Your task to perform on an android device: Search for vegetarian restaurants on Maps Image 0: 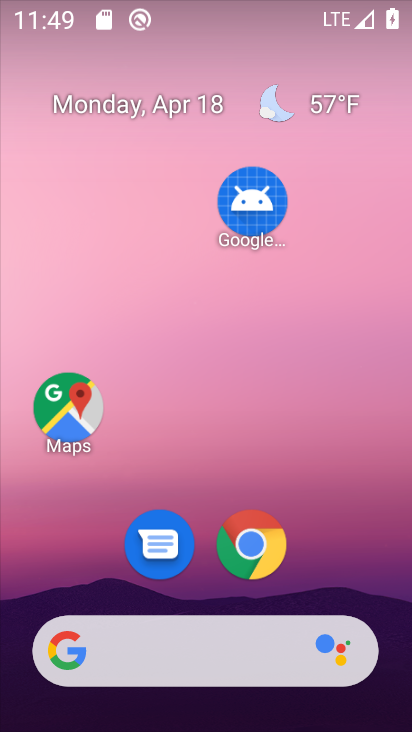
Step 0: drag from (195, 556) to (199, 263)
Your task to perform on an android device: Search for vegetarian restaurants on Maps Image 1: 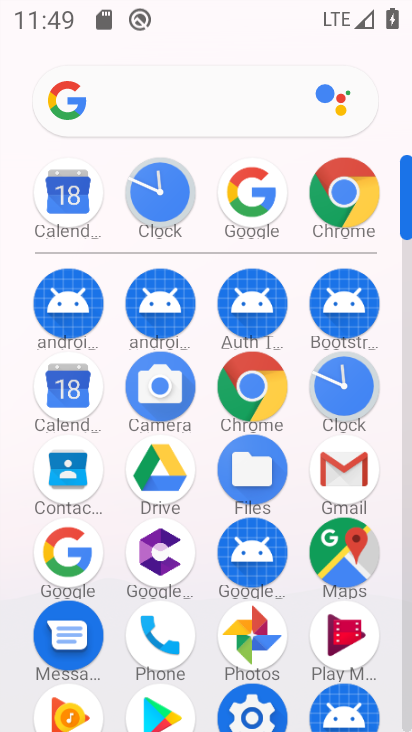
Step 1: click (68, 546)
Your task to perform on an android device: Search for vegetarian restaurants on Maps Image 2: 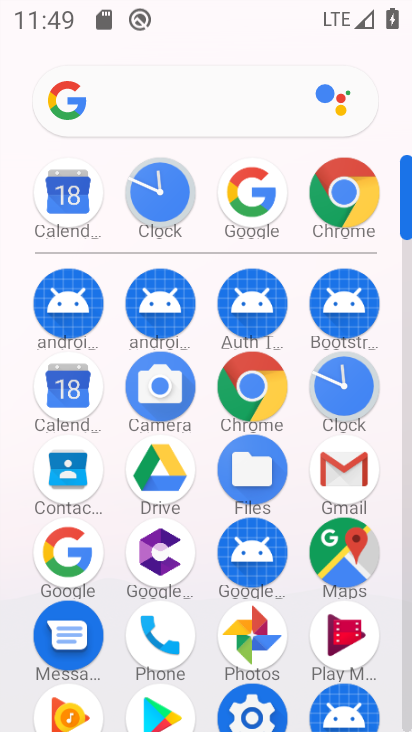
Step 2: click (68, 546)
Your task to perform on an android device: Search for vegetarian restaurants on Maps Image 3: 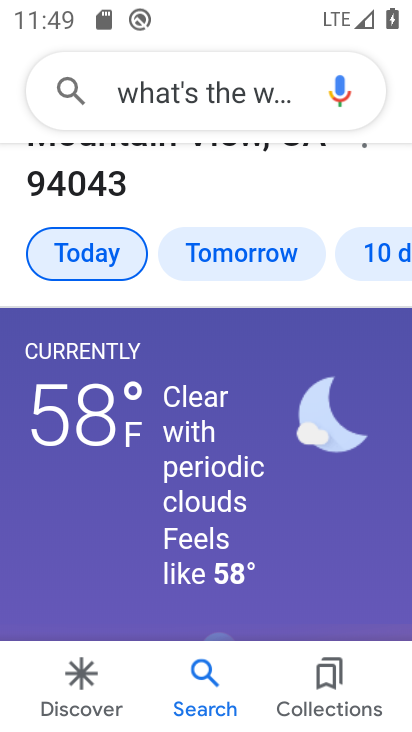
Step 3: press home button
Your task to perform on an android device: Search for vegetarian restaurants on Maps Image 4: 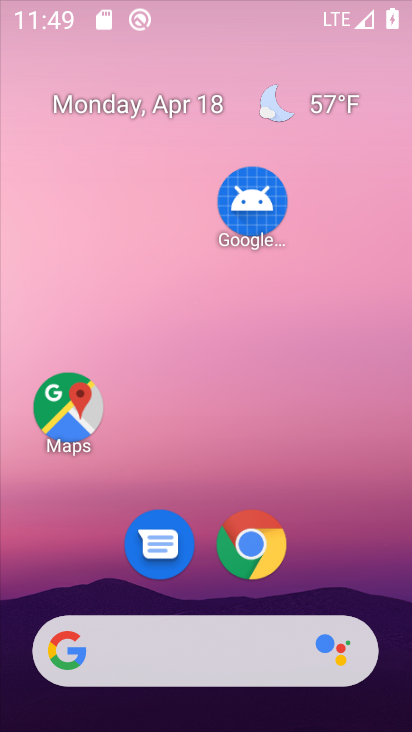
Step 4: drag from (215, 414) to (215, 193)
Your task to perform on an android device: Search for vegetarian restaurants on Maps Image 5: 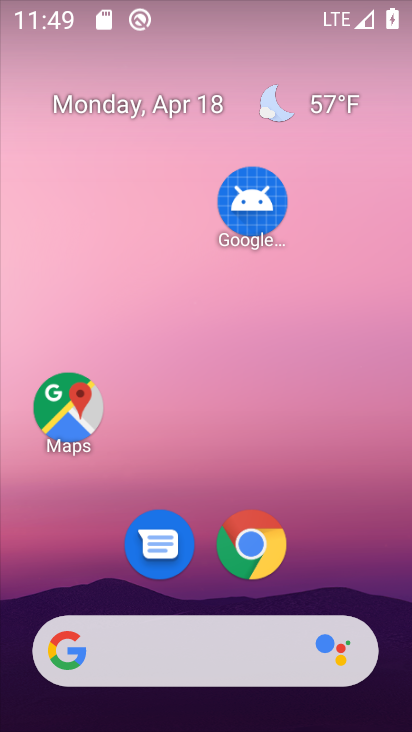
Step 5: click (70, 383)
Your task to perform on an android device: Search for vegetarian restaurants on Maps Image 6: 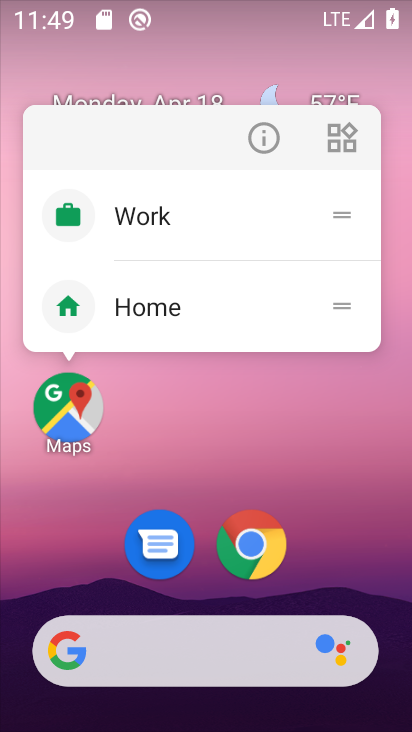
Step 6: click (70, 399)
Your task to perform on an android device: Search for vegetarian restaurants on Maps Image 7: 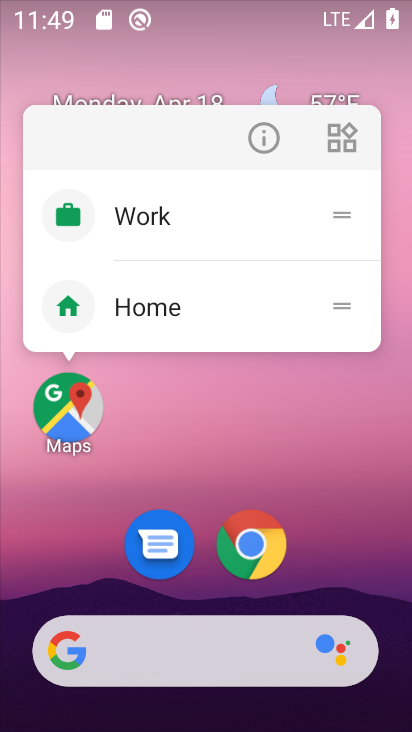
Step 7: click (70, 399)
Your task to perform on an android device: Search for vegetarian restaurants on Maps Image 8: 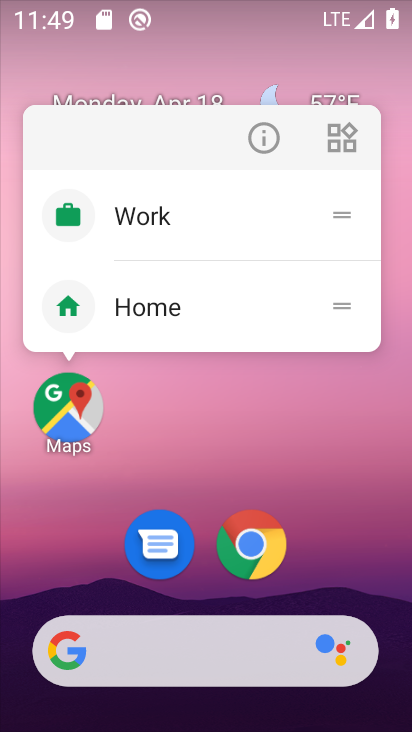
Step 8: click (70, 400)
Your task to perform on an android device: Search for vegetarian restaurants on Maps Image 9: 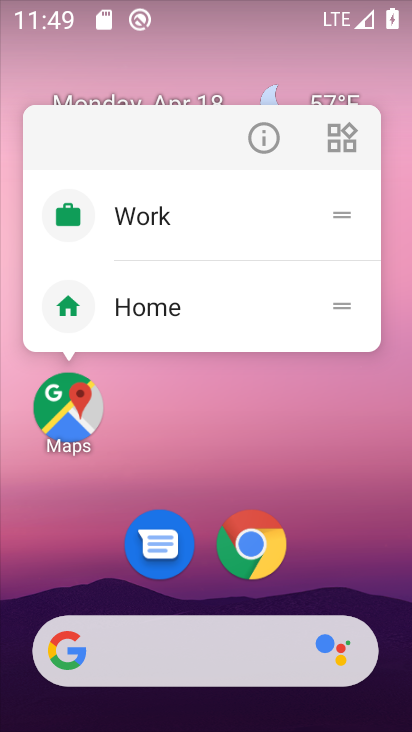
Step 9: click (67, 397)
Your task to perform on an android device: Search for vegetarian restaurants on Maps Image 10: 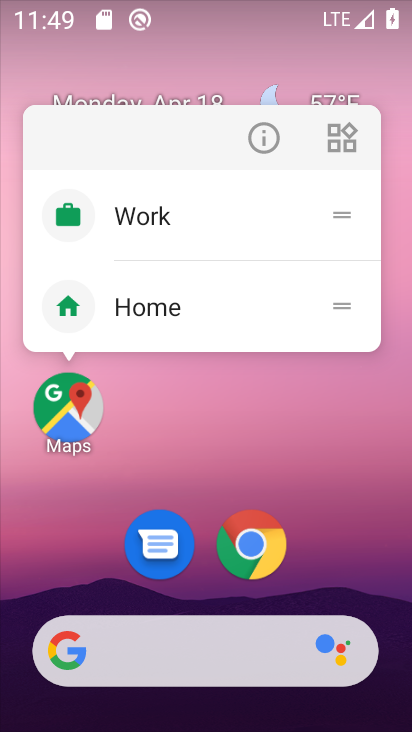
Step 10: click (59, 401)
Your task to perform on an android device: Search for vegetarian restaurants on Maps Image 11: 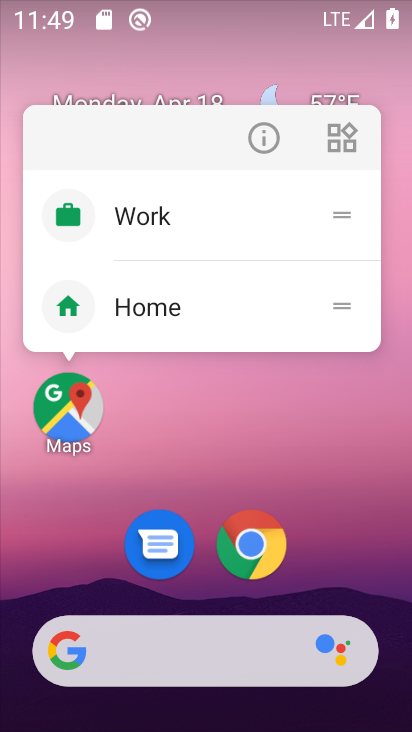
Step 11: click (84, 406)
Your task to perform on an android device: Search for vegetarian restaurants on Maps Image 12: 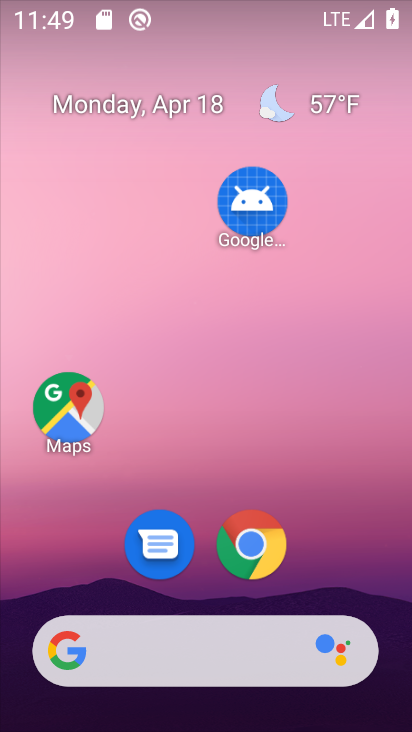
Step 12: click (83, 406)
Your task to perform on an android device: Search for vegetarian restaurants on Maps Image 13: 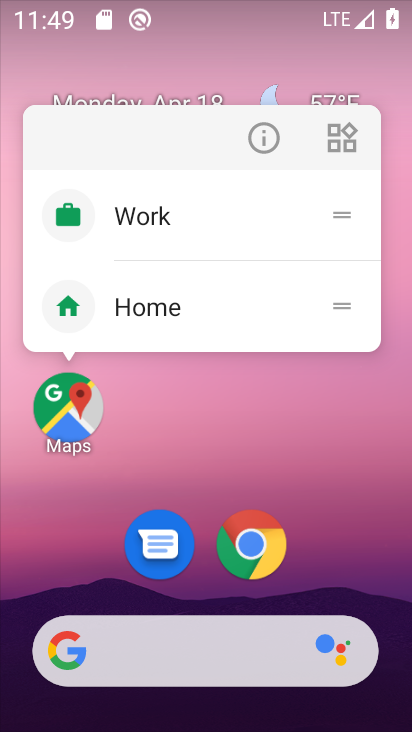
Step 13: click (78, 414)
Your task to perform on an android device: Search for vegetarian restaurants on Maps Image 14: 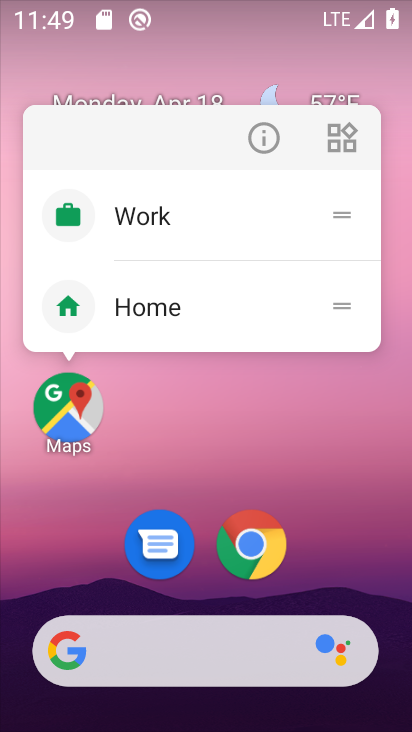
Step 14: click (78, 409)
Your task to perform on an android device: Search for vegetarian restaurants on Maps Image 15: 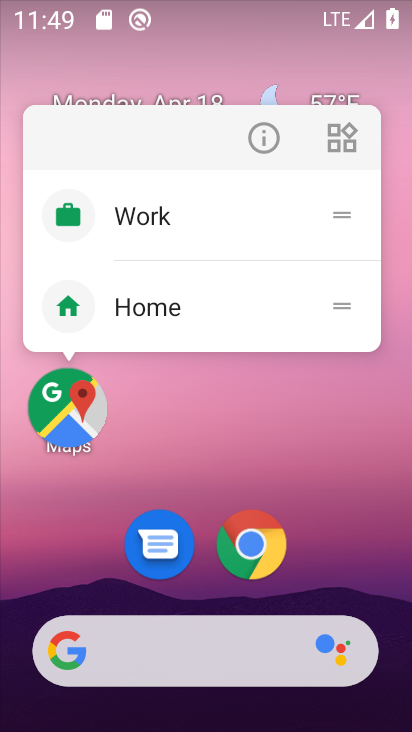
Step 15: click (78, 409)
Your task to perform on an android device: Search for vegetarian restaurants on Maps Image 16: 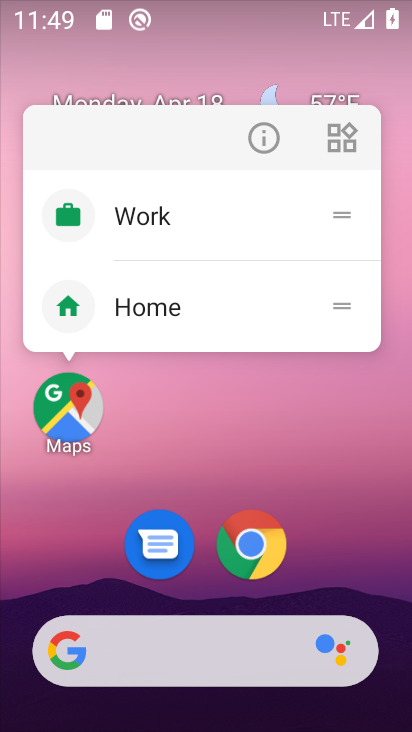
Step 16: drag from (199, 547) to (201, 223)
Your task to perform on an android device: Search for vegetarian restaurants on Maps Image 17: 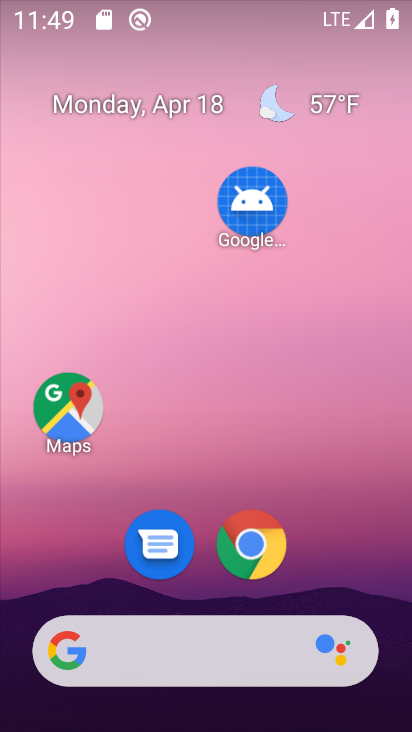
Step 17: drag from (210, 598) to (242, 160)
Your task to perform on an android device: Search for vegetarian restaurants on Maps Image 18: 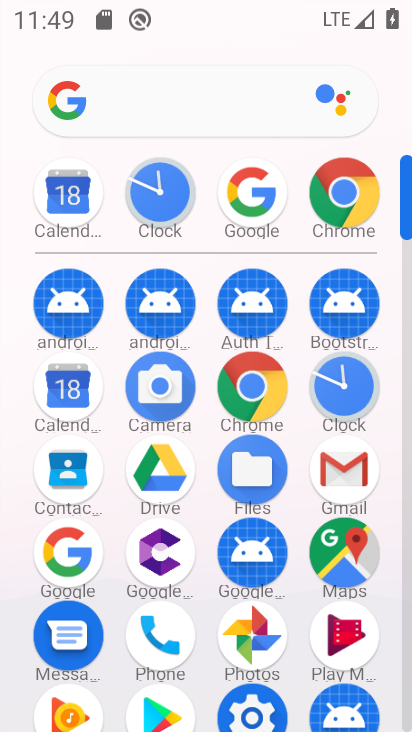
Step 18: click (329, 553)
Your task to perform on an android device: Search for vegetarian restaurants on Maps Image 19: 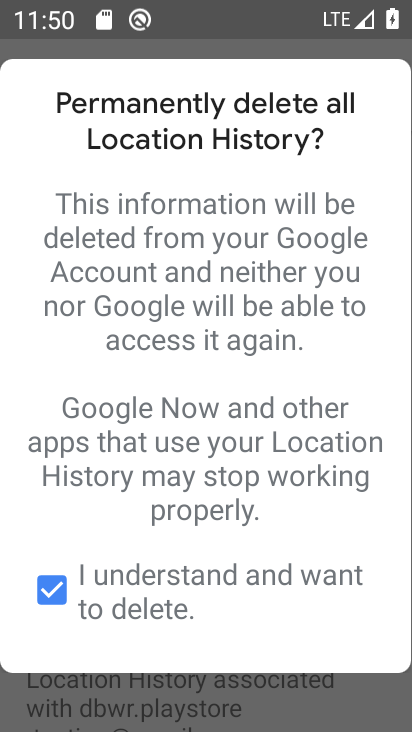
Step 19: press back button
Your task to perform on an android device: Search for vegetarian restaurants on Maps Image 20: 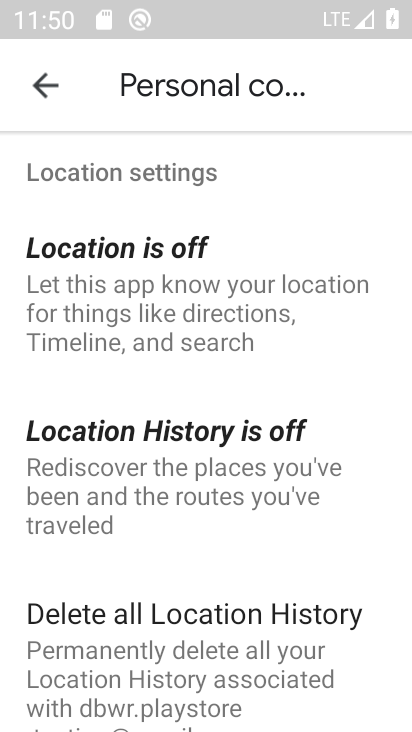
Step 20: click (63, 83)
Your task to perform on an android device: Search for vegetarian restaurants on Maps Image 21: 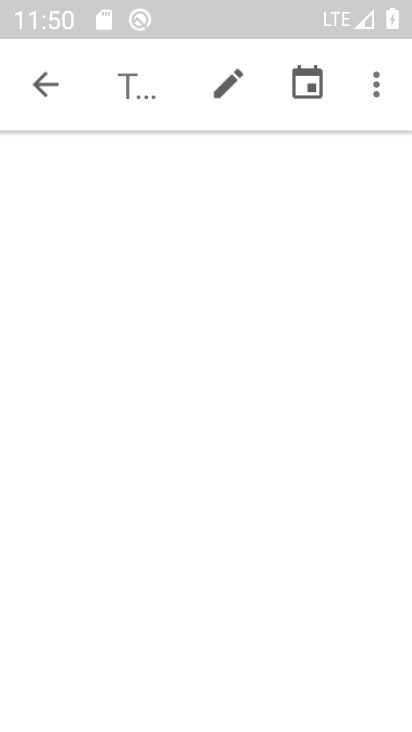
Step 21: click (63, 83)
Your task to perform on an android device: Search for vegetarian restaurants on Maps Image 22: 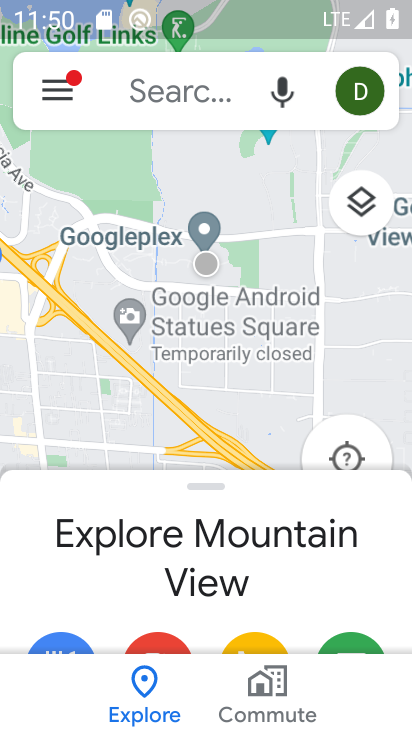
Step 22: click (187, 86)
Your task to perform on an android device: Search for vegetarian restaurants on Maps Image 23: 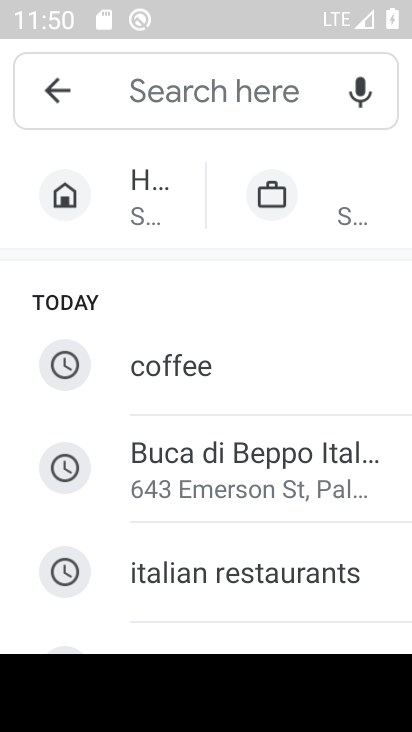
Step 23: click (185, 71)
Your task to perform on an android device: Search for vegetarian restaurants on Maps Image 24: 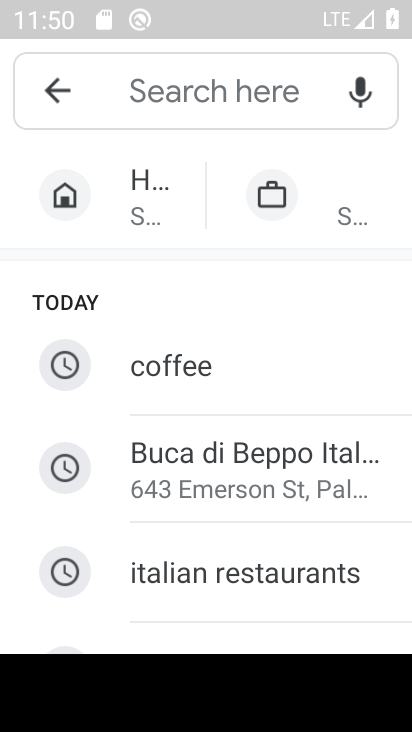
Step 24: type "vegetarian restaurants "
Your task to perform on an android device: Search for vegetarian restaurants on Maps Image 25: 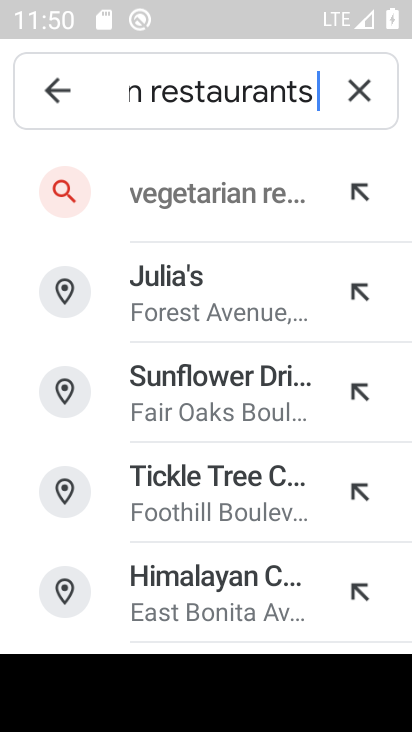
Step 25: click (240, 183)
Your task to perform on an android device: Search for vegetarian restaurants on Maps Image 26: 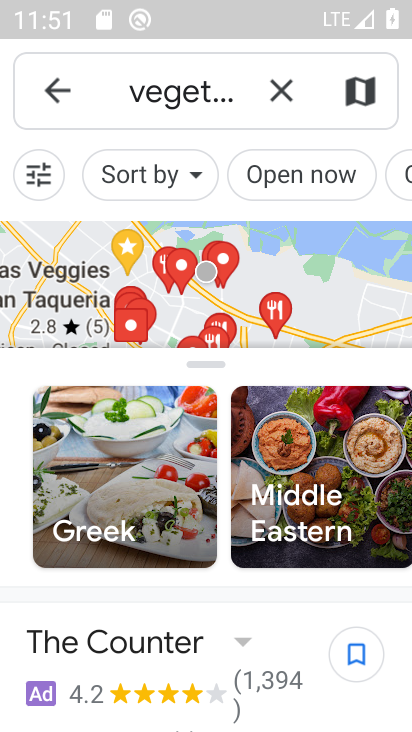
Step 26: task complete